Your task to perform on an android device: delete the emails in spam in the gmail app Image 0: 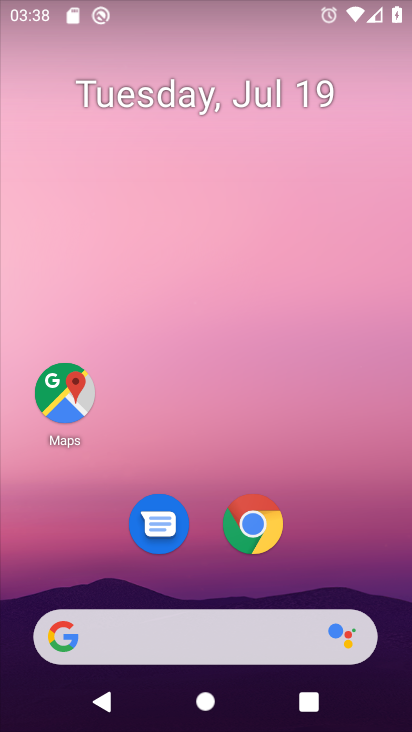
Step 0: drag from (236, 472) to (233, 29)
Your task to perform on an android device: delete the emails in spam in the gmail app Image 1: 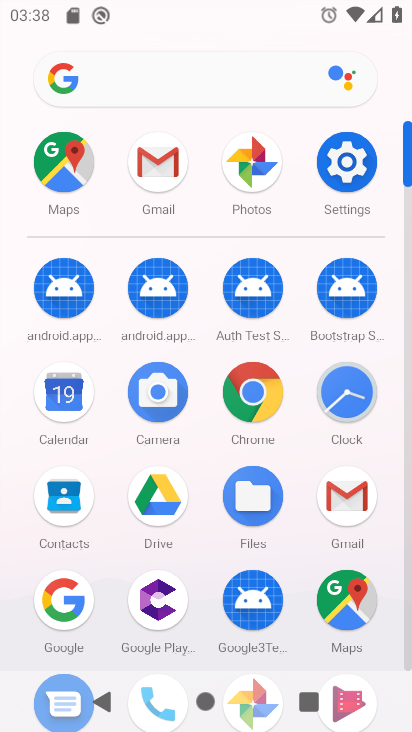
Step 1: click (165, 167)
Your task to perform on an android device: delete the emails in spam in the gmail app Image 2: 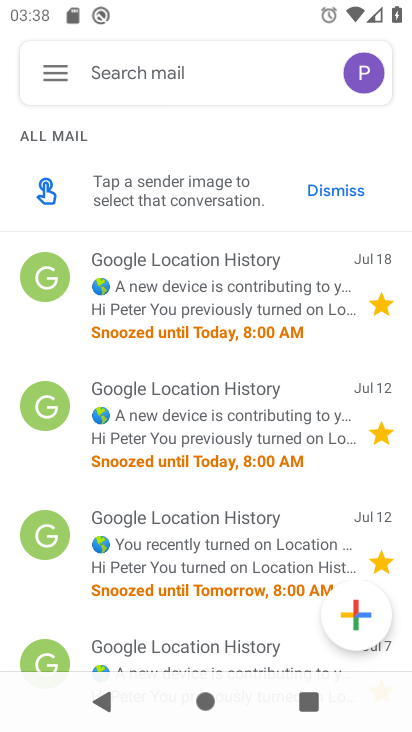
Step 2: click (59, 76)
Your task to perform on an android device: delete the emails in spam in the gmail app Image 3: 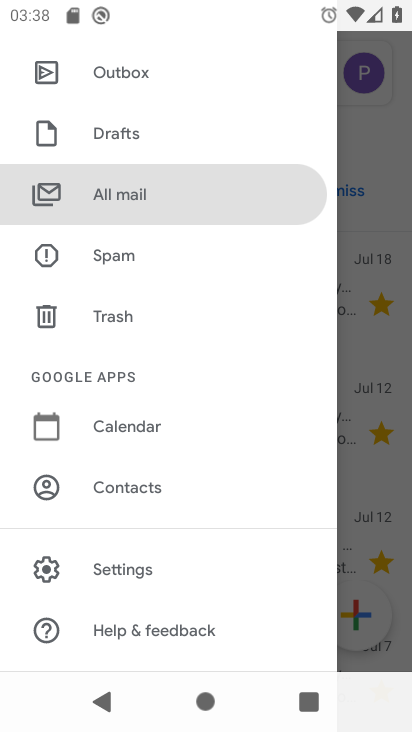
Step 3: click (116, 261)
Your task to perform on an android device: delete the emails in spam in the gmail app Image 4: 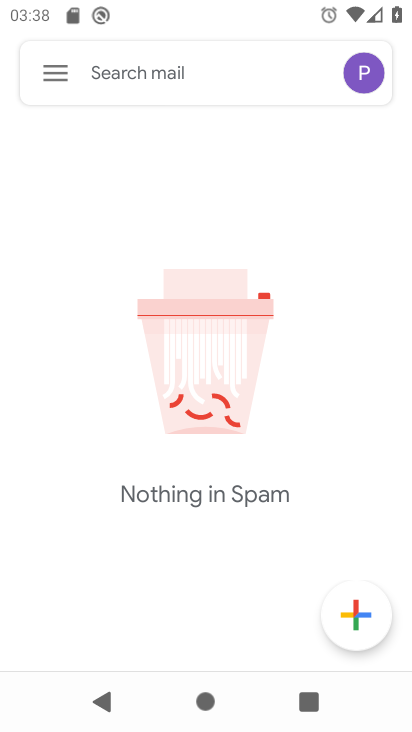
Step 4: task complete